Your task to perform on an android device: Find coffee shops on Maps Image 0: 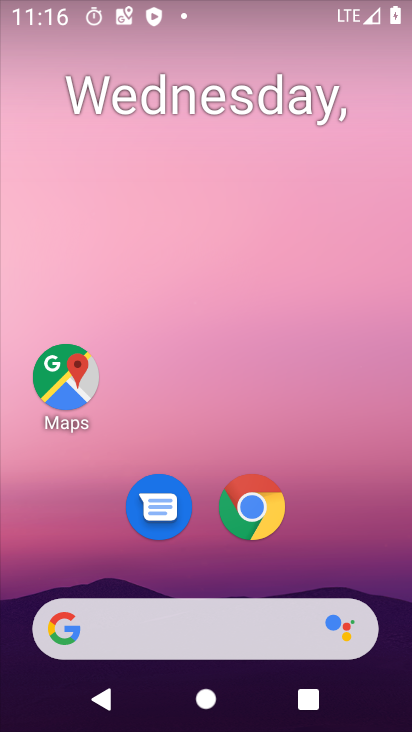
Step 0: drag from (172, 724) to (55, 93)
Your task to perform on an android device: Find coffee shops on Maps Image 1: 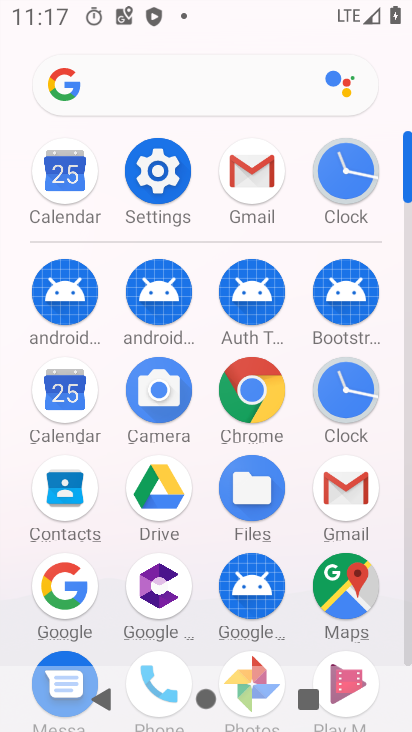
Step 1: click (347, 576)
Your task to perform on an android device: Find coffee shops on Maps Image 2: 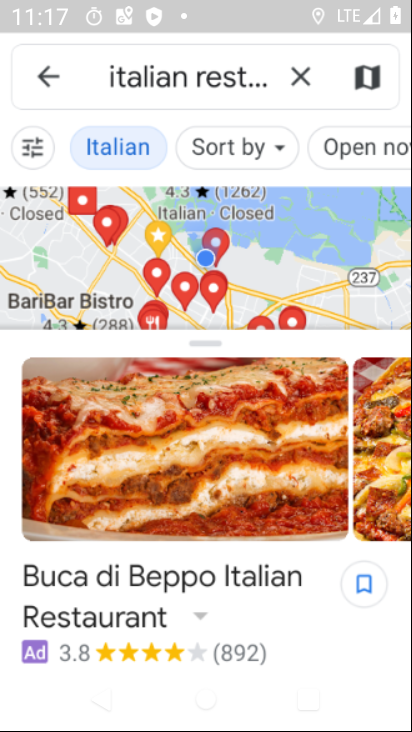
Step 2: click (298, 77)
Your task to perform on an android device: Find coffee shops on Maps Image 3: 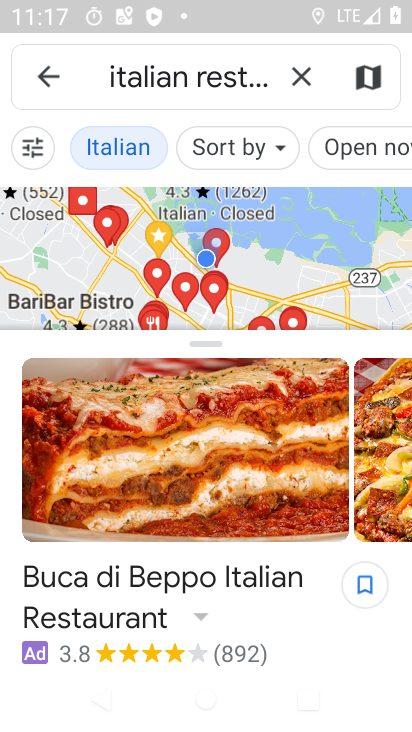
Step 3: click (296, 73)
Your task to perform on an android device: Find coffee shops on Maps Image 4: 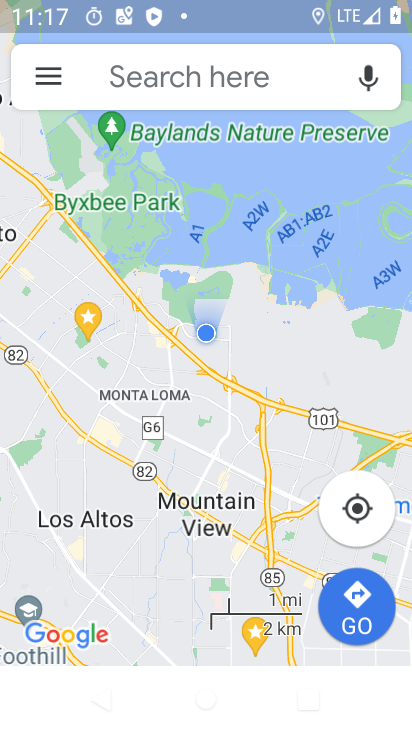
Step 4: click (241, 79)
Your task to perform on an android device: Find coffee shops on Maps Image 5: 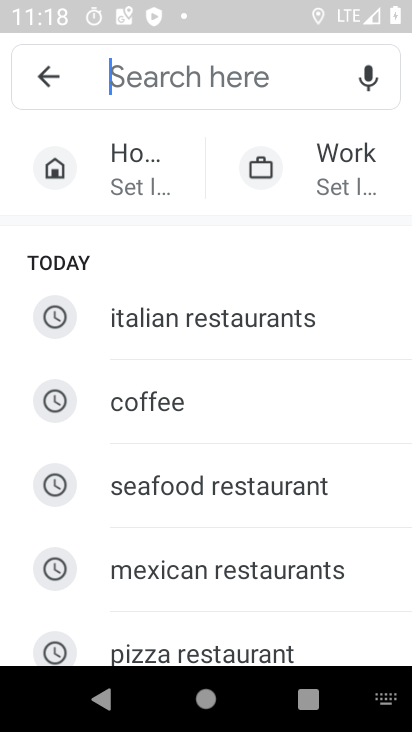
Step 5: type "coffee shops"
Your task to perform on an android device: Find coffee shops on Maps Image 6: 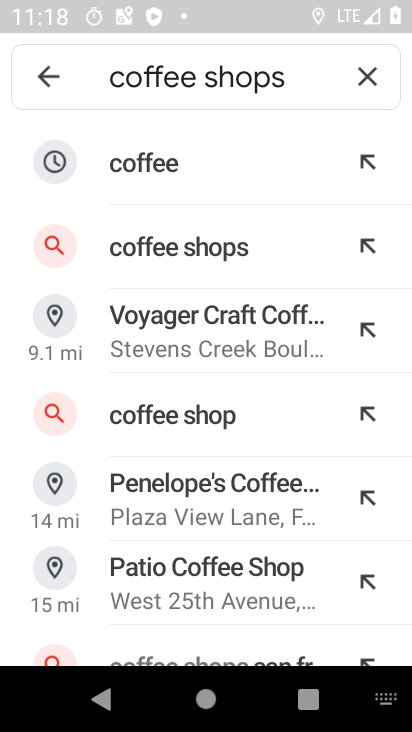
Step 6: click (177, 247)
Your task to perform on an android device: Find coffee shops on Maps Image 7: 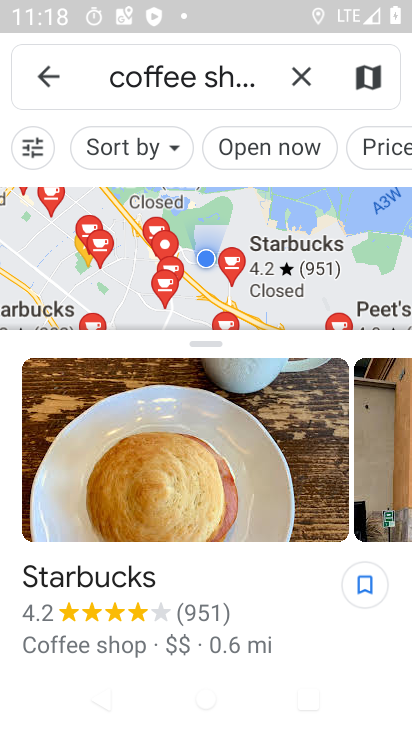
Step 7: task complete